Your task to perform on an android device: Open Google Image 0: 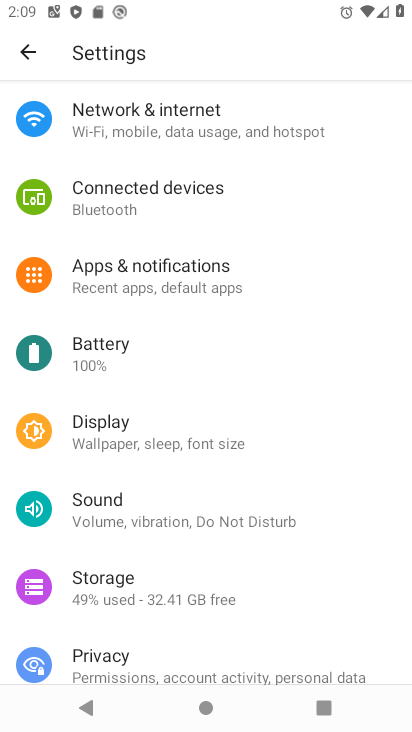
Step 0: press home button
Your task to perform on an android device: Open Google Image 1: 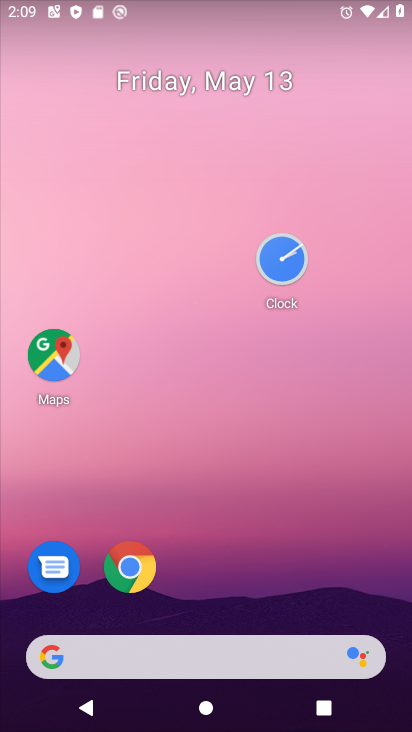
Step 1: click (137, 565)
Your task to perform on an android device: Open Google Image 2: 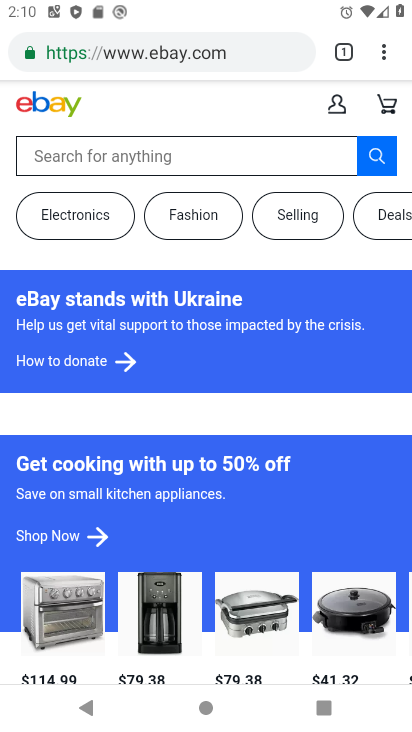
Step 2: click (181, 62)
Your task to perform on an android device: Open Google Image 3: 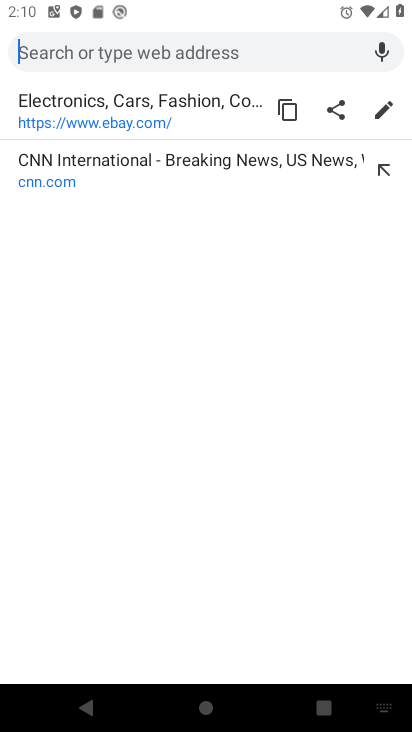
Step 3: type "google.com"
Your task to perform on an android device: Open Google Image 4: 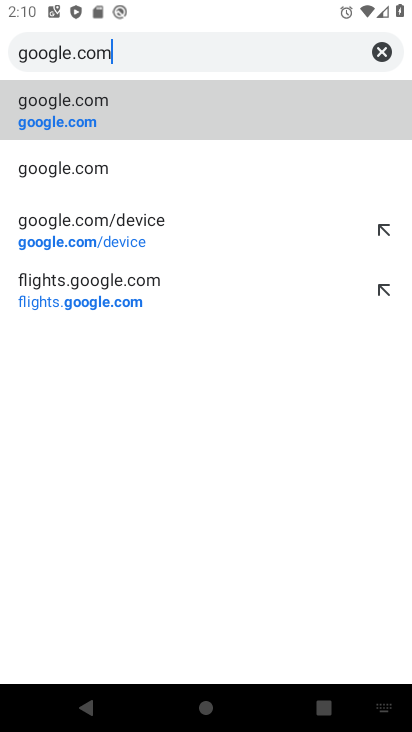
Step 4: click (41, 117)
Your task to perform on an android device: Open Google Image 5: 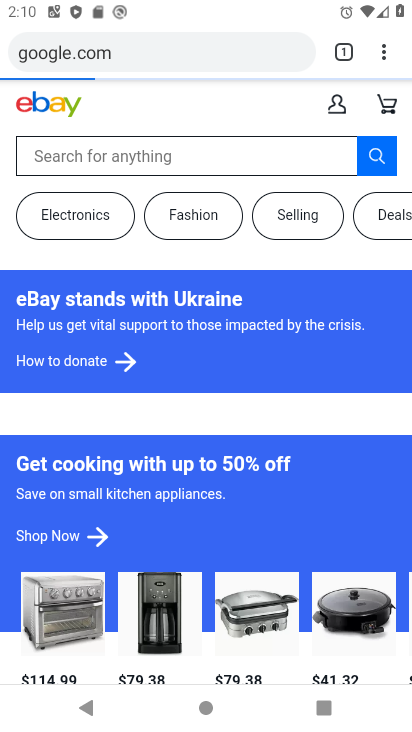
Step 5: task complete